Your task to perform on an android device: turn on wifi Image 0: 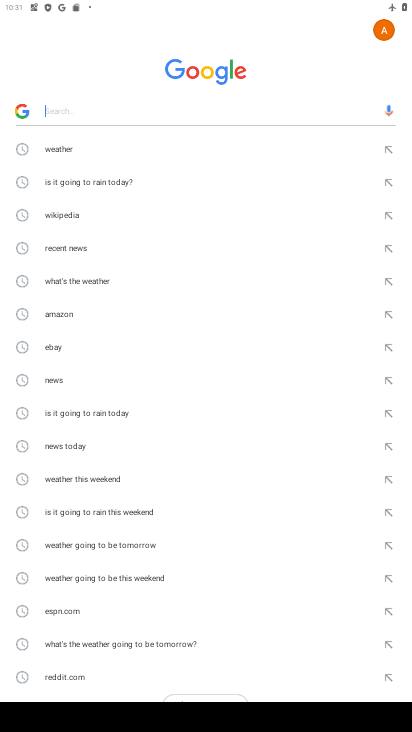
Step 0: press home button
Your task to perform on an android device: turn on wifi Image 1: 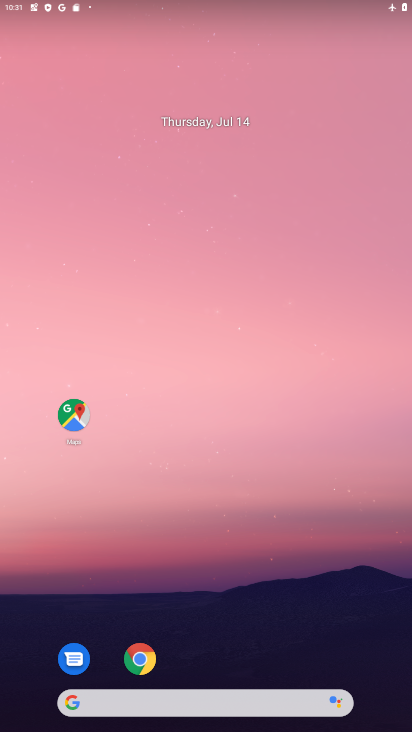
Step 1: drag from (217, 653) to (231, 266)
Your task to perform on an android device: turn on wifi Image 2: 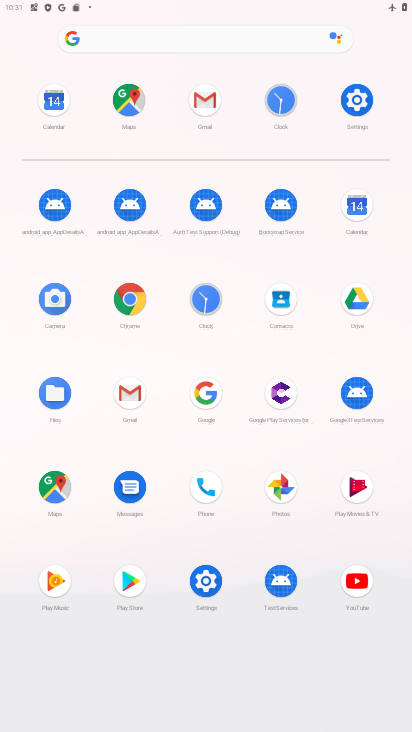
Step 2: click (363, 95)
Your task to perform on an android device: turn on wifi Image 3: 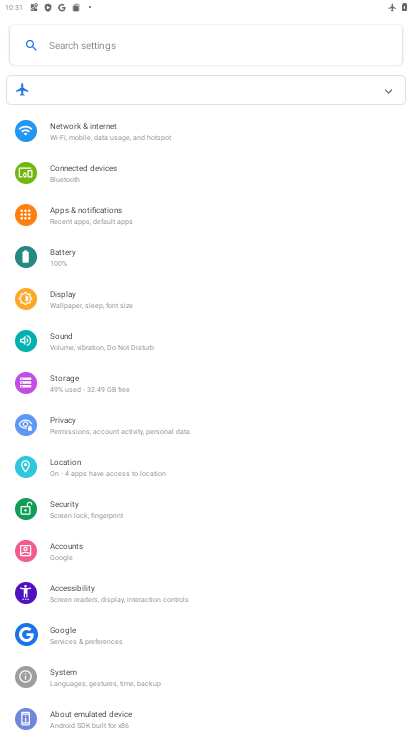
Step 3: click (79, 141)
Your task to perform on an android device: turn on wifi Image 4: 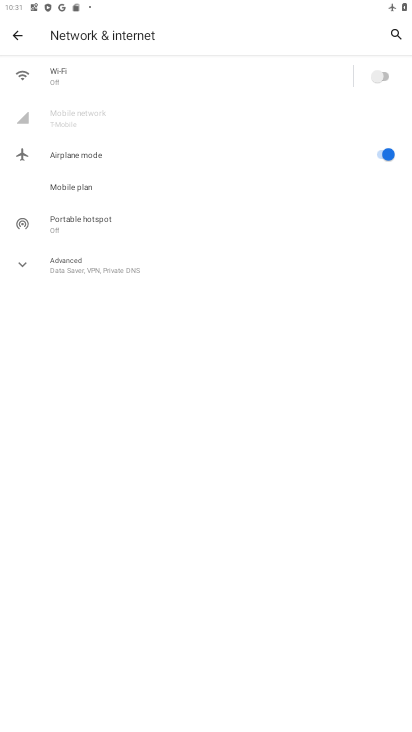
Step 4: click (377, 70)
Your task to perform on an android device: turn on wifi Image 5: 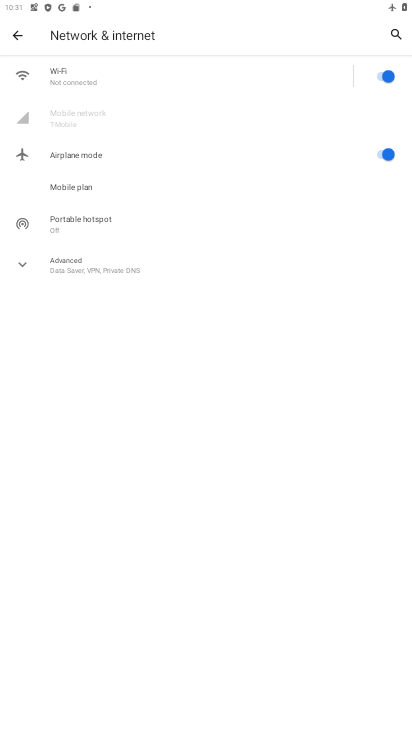
Step 5: task complete